Your task to perform on an android device: toggle notification dots Image 0: 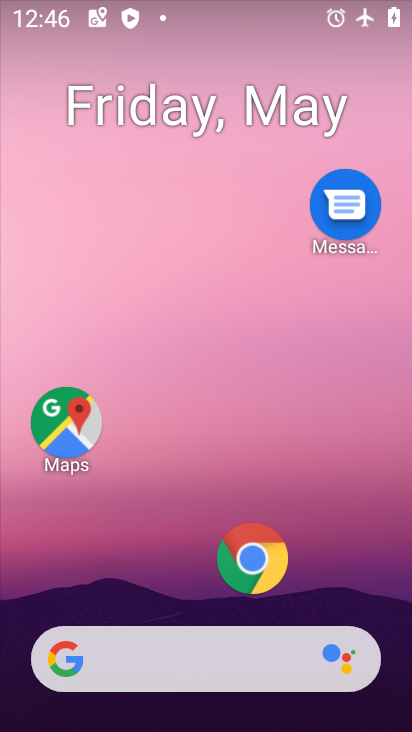
Step 0: drag from (140, 582) to (133, 159)
Your task to perform on an android device: toggle notification dots Image 1: 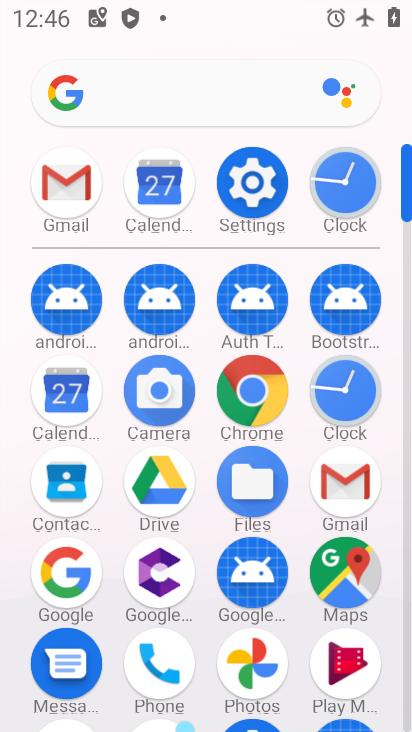
Step 1: click (261, 195)
Your task to perform on an android device: toggle notification dots Image 2: 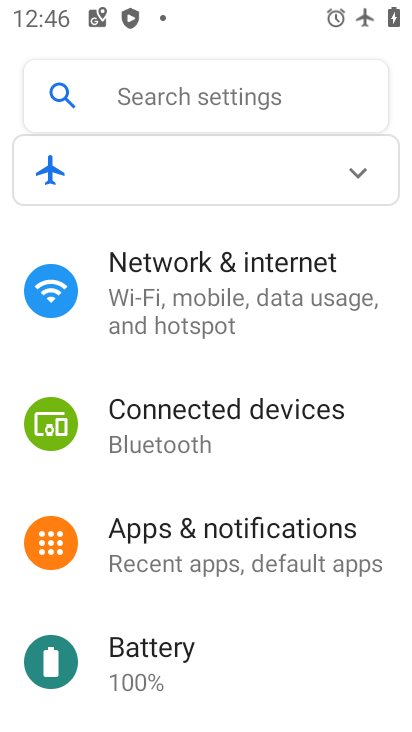
Step 2: click (257, 534)
Your task to perform on an android device: toggle notification dots Image 3: 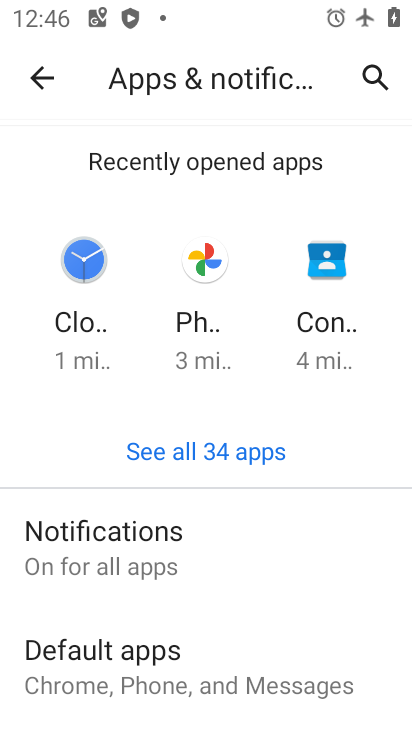
Step 3: drag from (181, 555) to (185, 288)
Your task to perform on an android device: toggle notification dots Image 4: 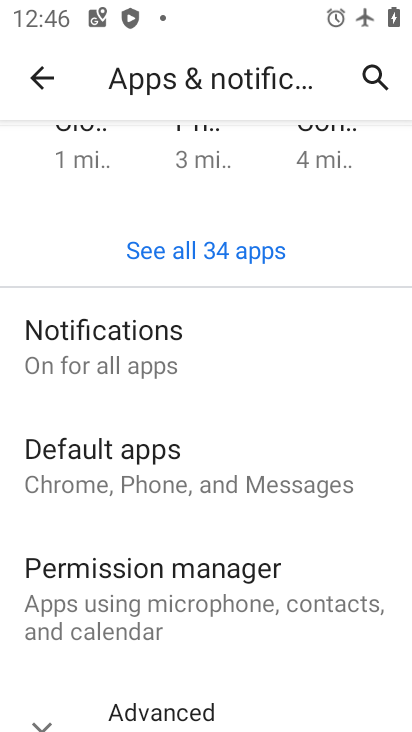
Step 4: click (195, 346)
Your task to perform on an android device: toggle notification dots Image 5: 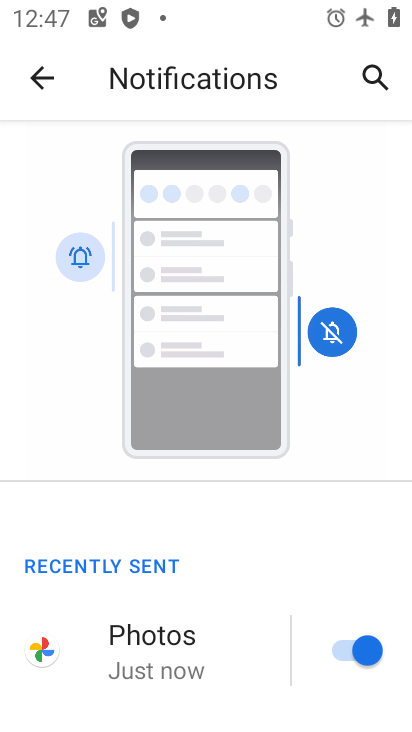
Step 5: drag from (108, 537) to (92, 79)
Your task to perform on an android device: toggle notification dots Image 6: 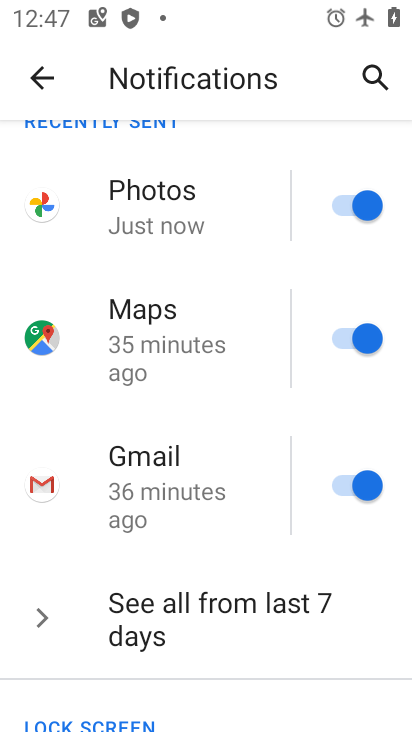
Step 6: drag from (132, 495) to (209, 0)
Your task to perform on an android device: toggle notification dots Image 7: 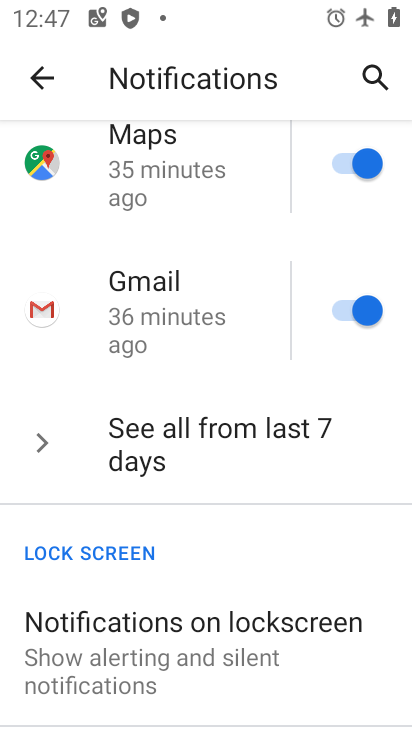
Step 7: drag from (241, 615) to (131, 0)
Your task to perform on an android device: toggle notification dots Image 8: 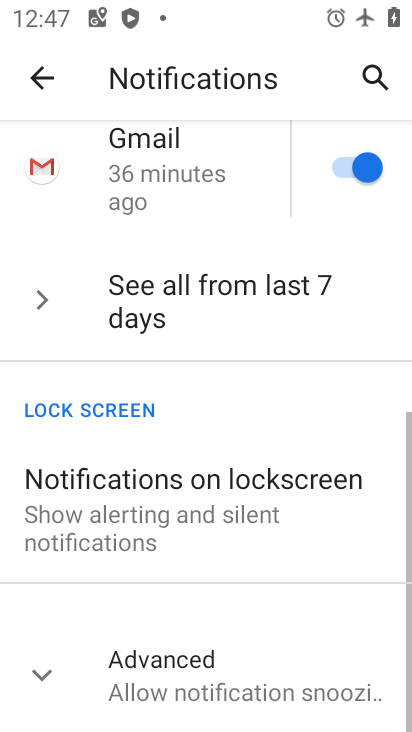
Step 8: click (188, 659)
Your task to perform on an android device: toggle notification dots Image 9: 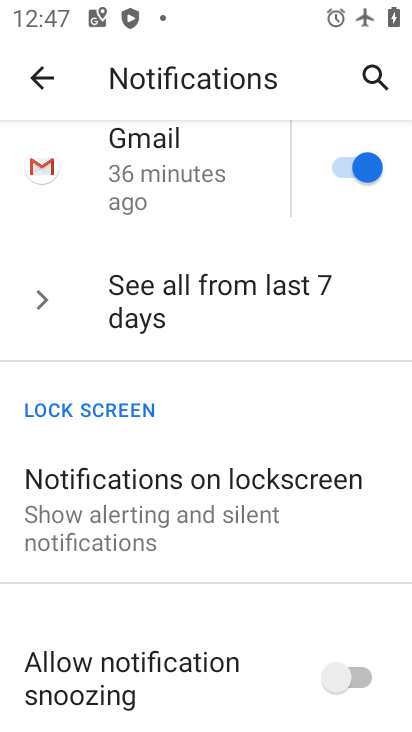
Step 9: drag from (154, 590) to (200, 143)
Your task to perform on an android device: toggle notification dots Image 10: 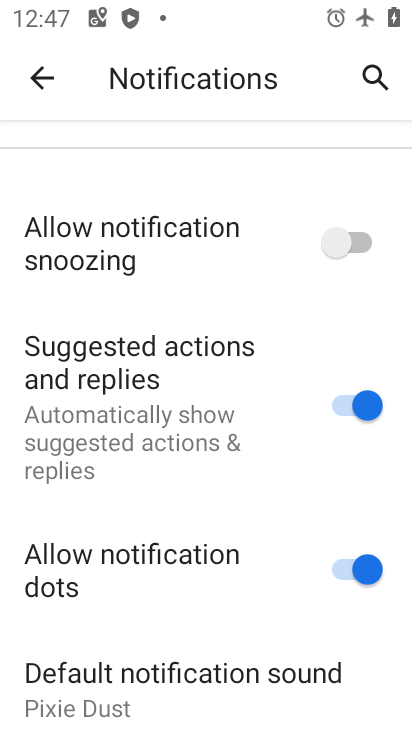
Step 10: click (322, 566)
Your task to perform on an android device: toggle notification dots Image 11: 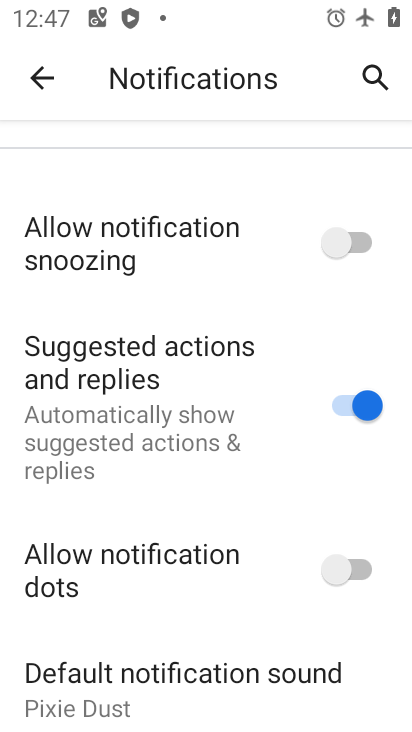
Step 11: task complete